Your task to perform on an android device: turn pop-ups off in chrome Image 0: 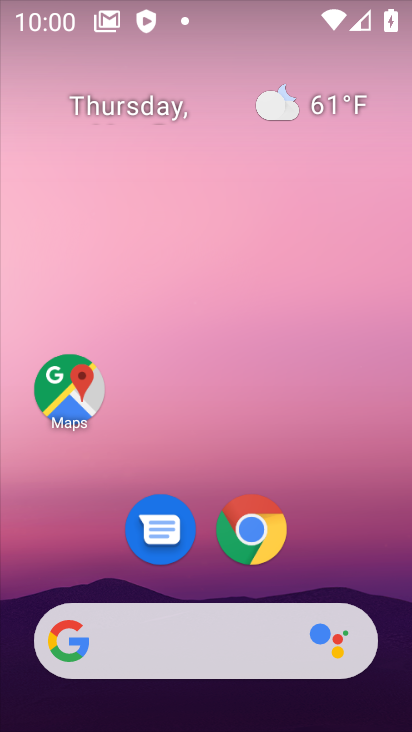
Step 0: drag from (360, 243) to (360, 196)
Your task to perform on an android device: turn pop-ups off in chrome Image 1: 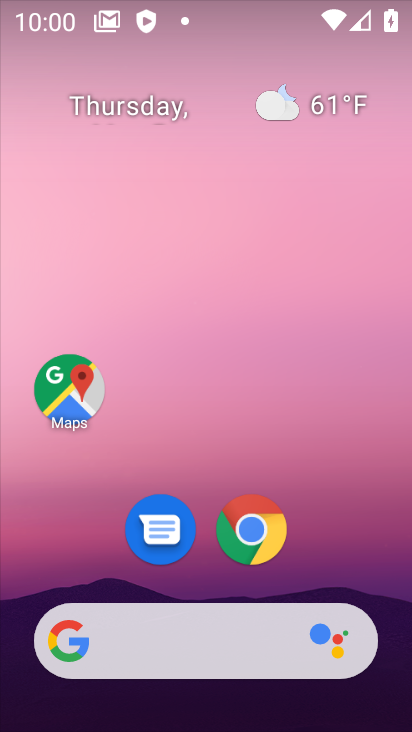
Step 1: click (253, 538)
Your task to perform on an android device: turn pop-ups off in chrome Image 2: 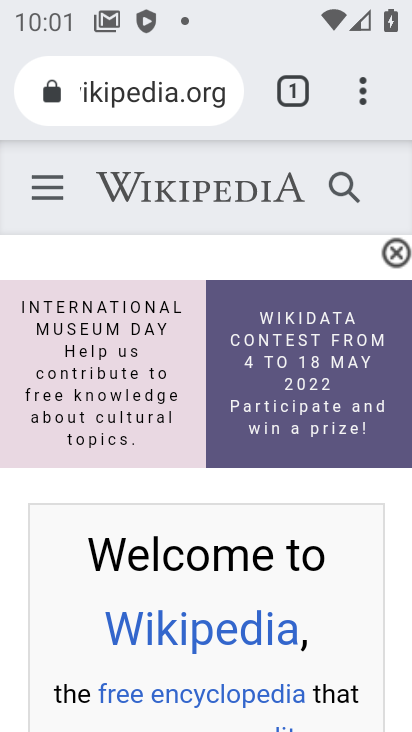
Step 2: click (355, 78)
Your task to perform on an android device: turn pop-ups off in chrome Image 3: 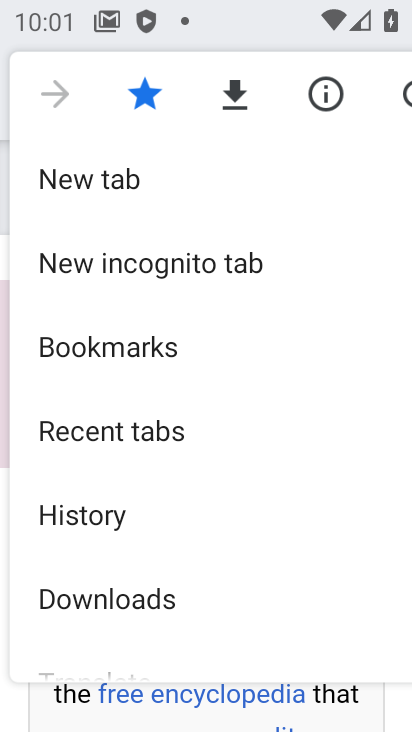
Step 3: drag from (260, 617) to (253, 212)
Your task to perform on an android device: turn pop-ups off in chrome Image 4: 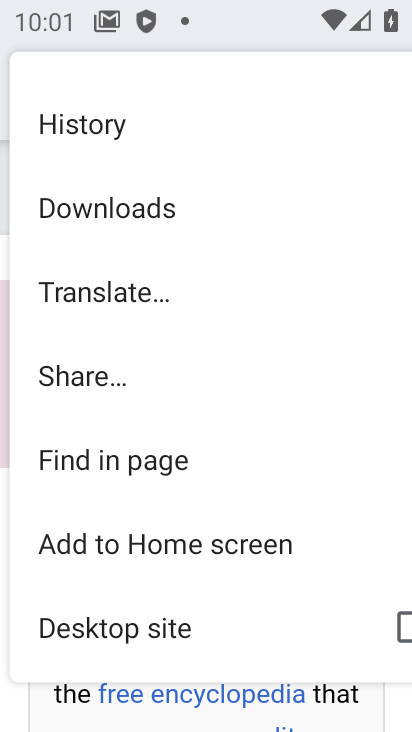
Step 4: drag from (342, 599) to (312, 281)
Your task to perform on an android device: turn pop-ups off in chrome Image 5: 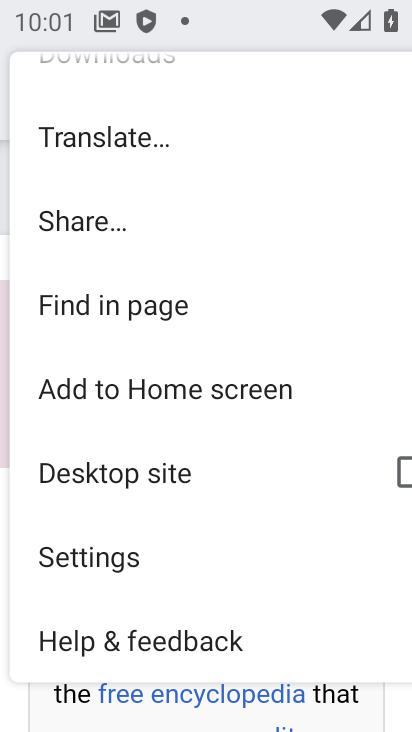
Step 5: click (107, 554)
Your task to perform on an android device: turn pop-ups off in chrome Image 6: 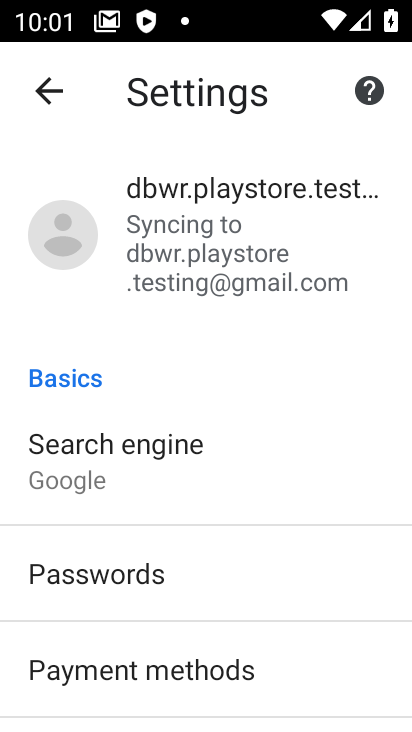
Step 6: drag from (291, 688) to (309, 299)
Your task to perform on an android device: turn pop-ups off in chrome Image 7: 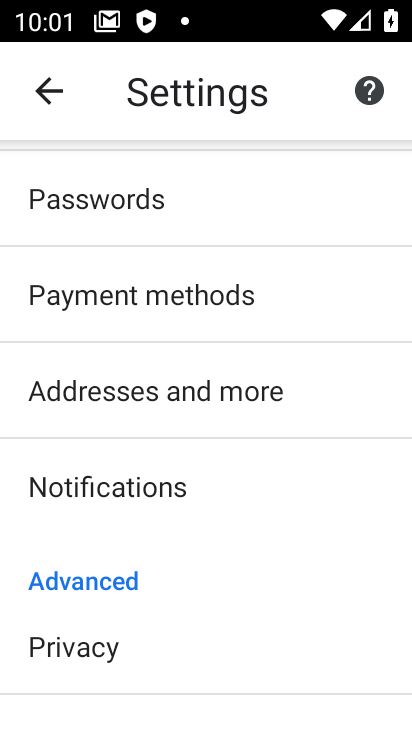
Step 7: drag from (243, 671) to (242, 415)
Your task to perform on an android device: turn pop-ups off in chrome Image 8: 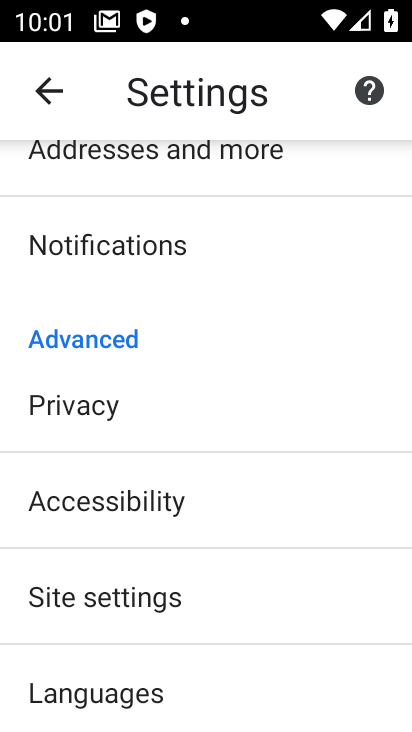
Step 8: click (90, 588)
Your task to perform on an android device: turn pop-ups off in chrome Image 9: 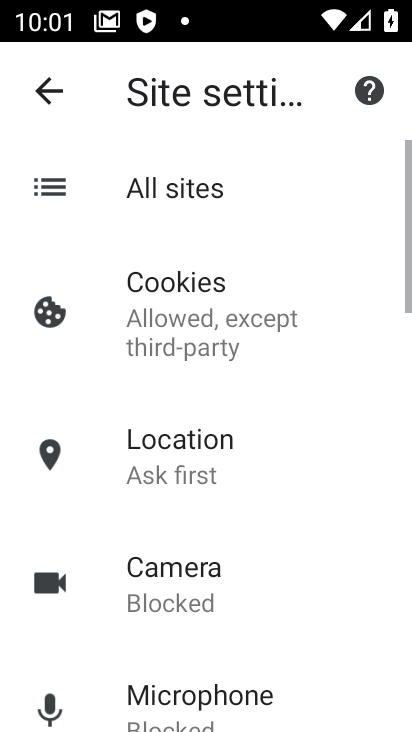
Step 9: drag from (310, 614) to (332, 303)
Your task to perform on an android device: turn pop-ups off in chrome Image 10: 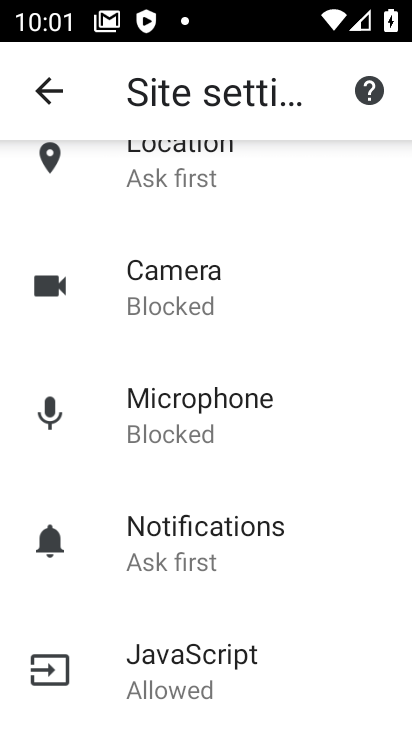
Step 10: drag from (294, 658) to (305, 447)
Your task to perform on an android device: turn pop-ups off in chrome Image 11: 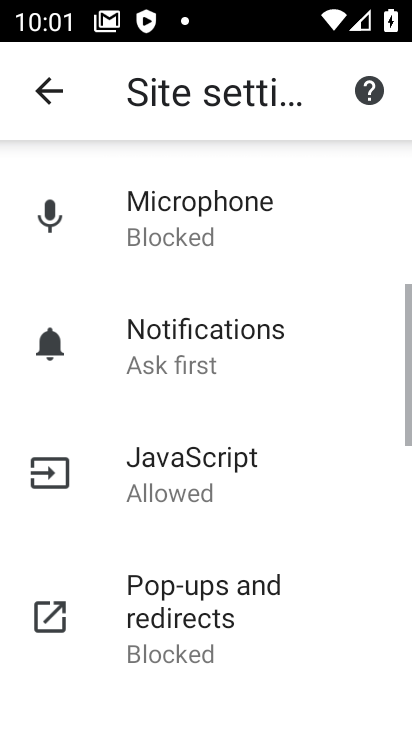
Step 11: click (178, 596)
Your task to perform on an android device: turn pop-ups off in chrome Image 12: 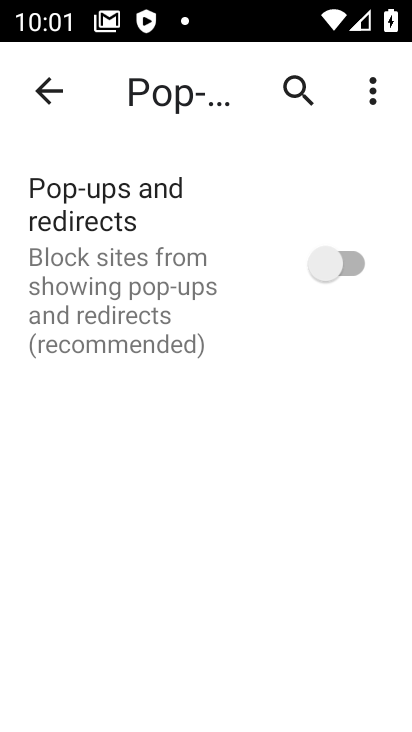
Step 12: task complete